Your task to perform on an android device: turn off wifi Image 0: 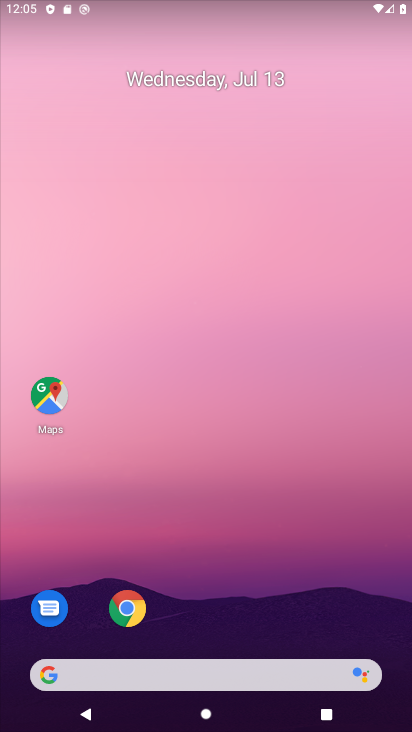
Step 0: drag from (78, 11) to (155, 574)
Your task to perform on an android device: turn off wifi Image 1: 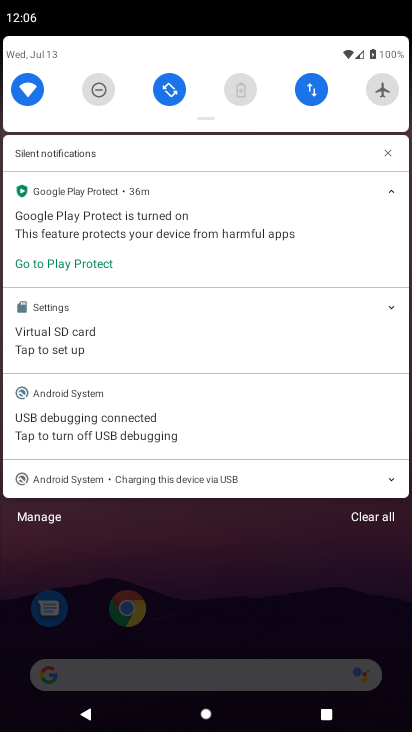
Step 1: click (33, 91)
Your task to perform on an android device: turn off wifi Image 2: 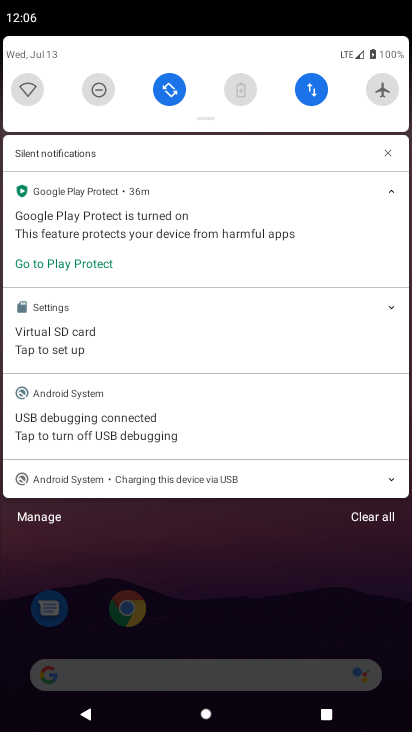
Step 2: task complete